Your task to perform on an android device: toggle pop-ups in chrome Image 0: 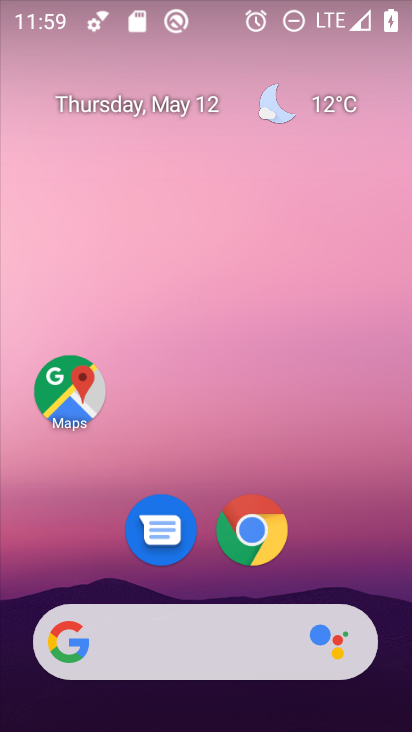
Step 0: press home button
Your task to perform on an android device: toggle pop-ups in chrome Image 1: 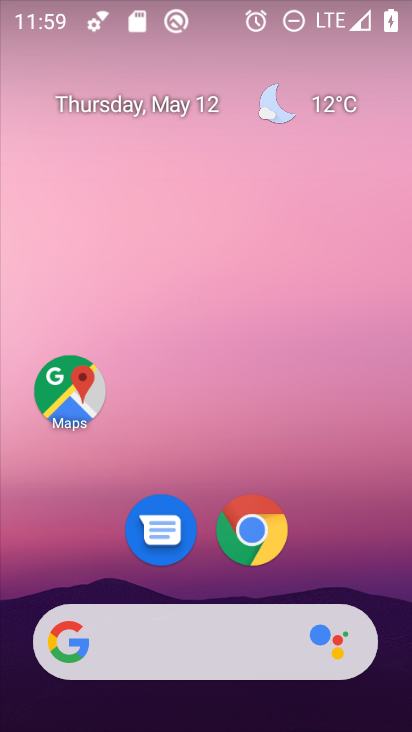
Step 1: click (254, 548)
Your task to perform on an android device: toggle pop-ups in chrome Image 2: 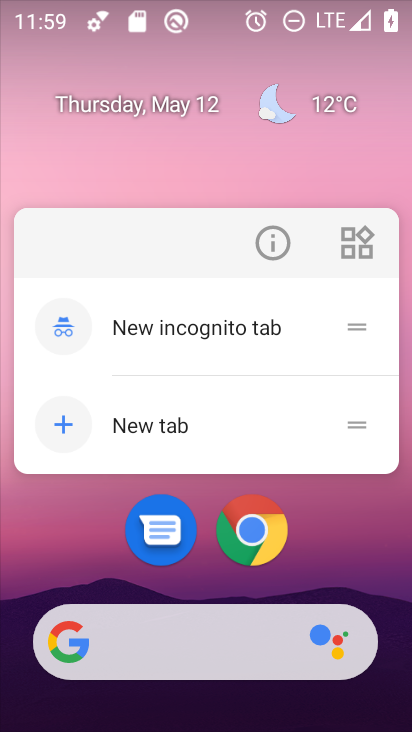
Step 2: click (254, 532)
Your task to perform on an android device: toggle pop-ups in chrome Image 3: 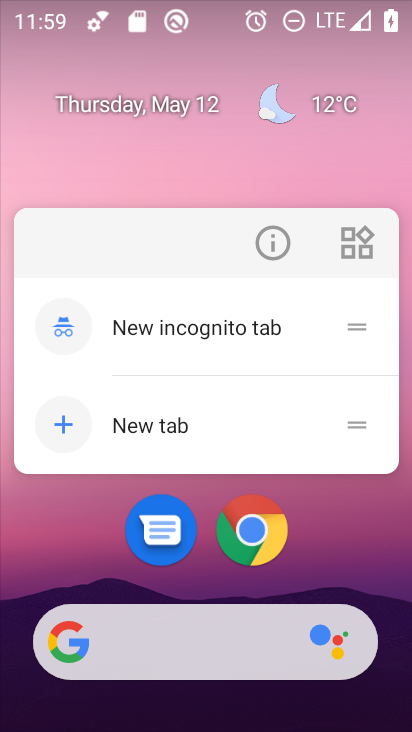
Step 3: click (253, 536)
Your task to perform on an android device: toggle pop-ups in chrome Image 4: 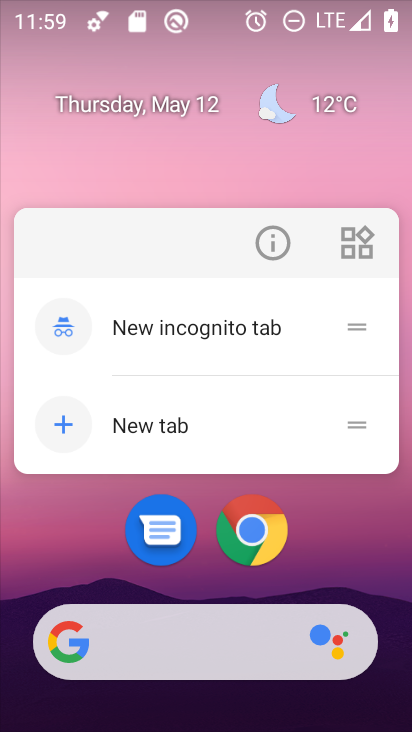
Step 4: click (249, 542)
Your task to perform on an android device: toggle pop-ups in chrome Image 5: 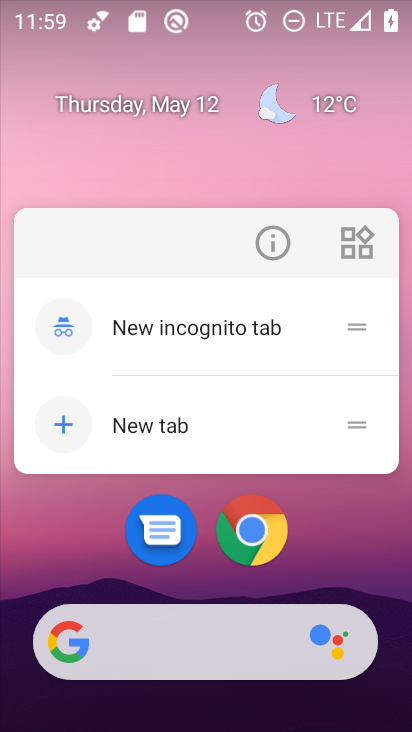
Step 5: click (264, 534)
Your task to perform on an android device: toggle pop-ups in chrome Image 6: 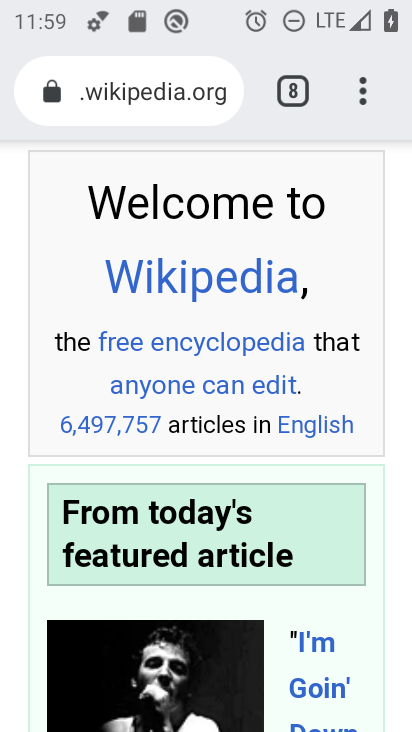
Step 6: drag from (366, 97) to (250, 571)
Your task to perform on an android device: toggle pop-ups in chrome Image 7: 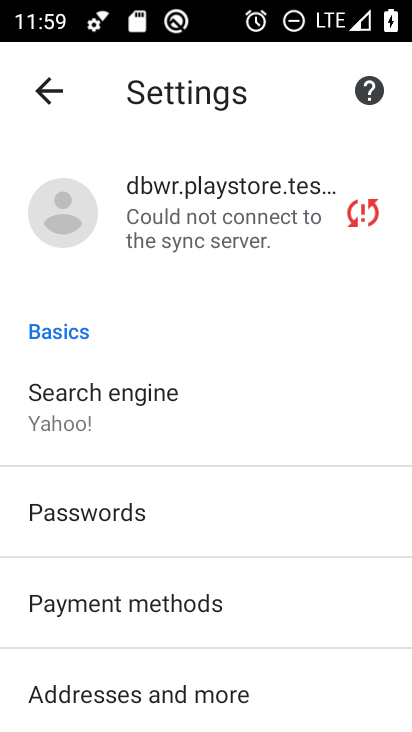
Step 7: drag from (170, 661) to (234, 222)
Your task to perform on an android device: toggle pop-ups in chrome Image 8: 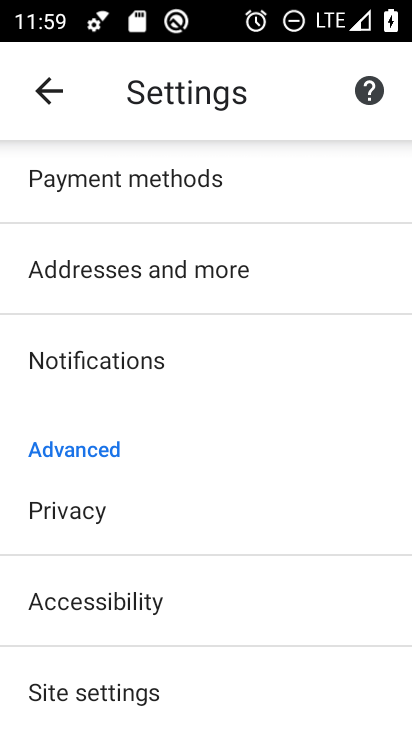
Step 8: drag from (181, 676) to (180, 410)
Your task to perform on an android device: toggle pop-ups in chrome Image 9: 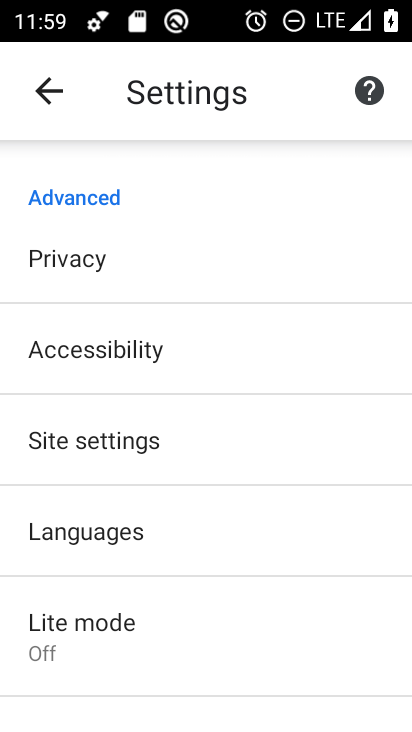
Step 9: click (140, 453)
Your task to perform on an android device: toggle pop-ups in chrome Image 10: 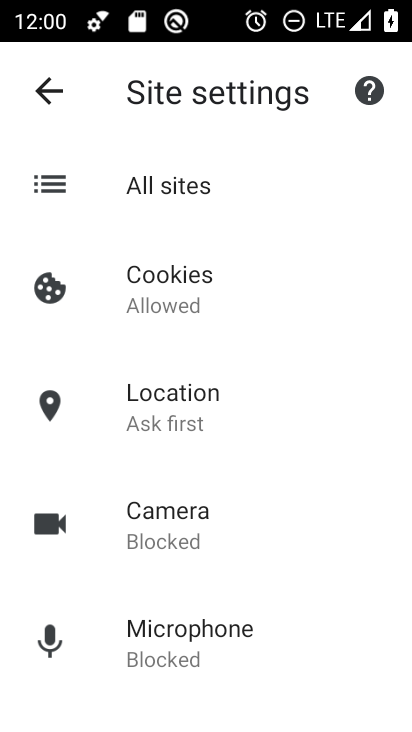
Step 10: drag from (274, 628) to (269, 169)
Your task to perform on an android device: toggle pop-ups in chrome Image 11: 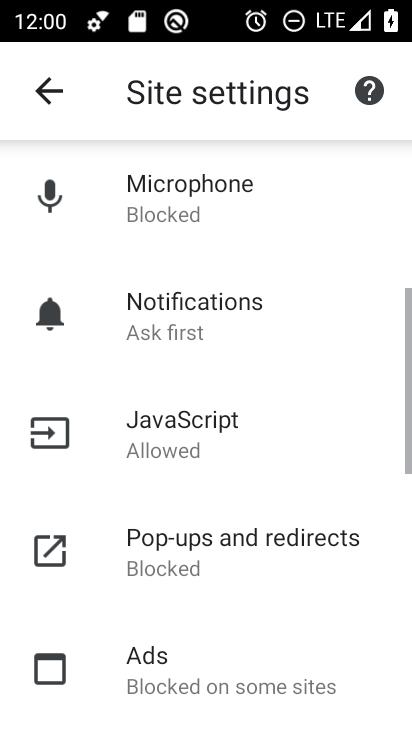
Step 11: click (193, 536)
Your task to perform on an android device: toggle pop-ups in chrome Image 12: 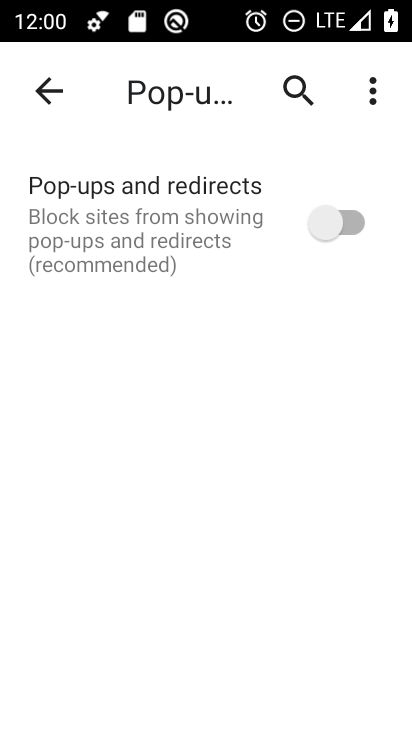
Step 12: click (347, 219)
Your task to perform on an android device: toggle pop-ups in chrome Image 13: 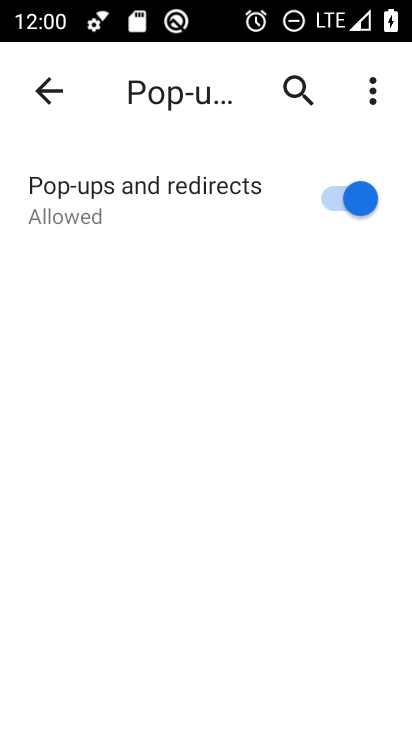
Step 13: task complete